Your task to perform on an android device: allow notifications from all sites in the chrome app Image 0: 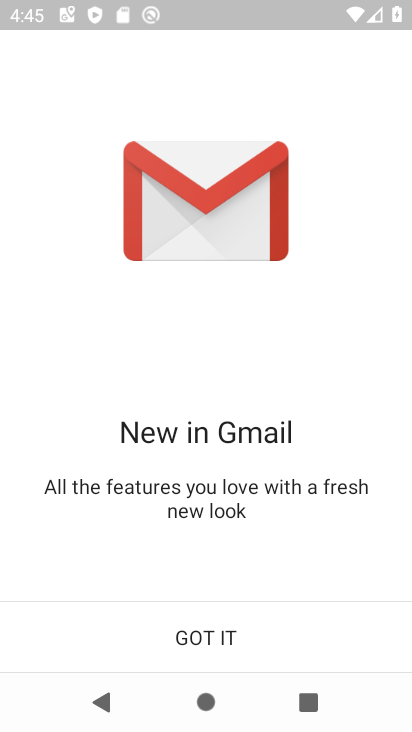
Step 0: click (220, 644)
Your task to perform on an android device: allow notifications from all sites in the chrome app Image 1: 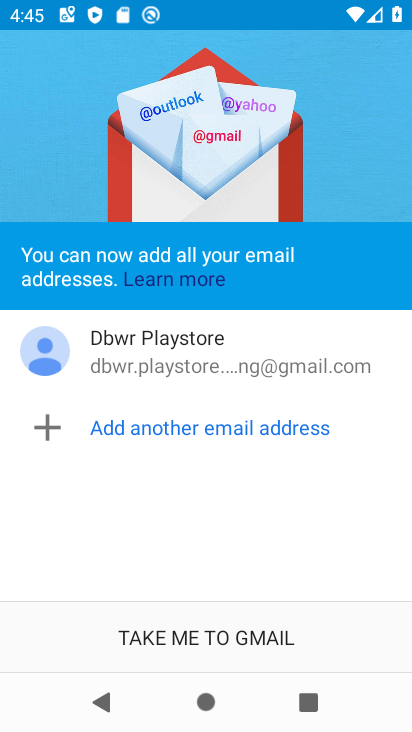
Step 1: press home button
Your task to perform on an android device: allow notifications from all sites in the chrome app Image 2: 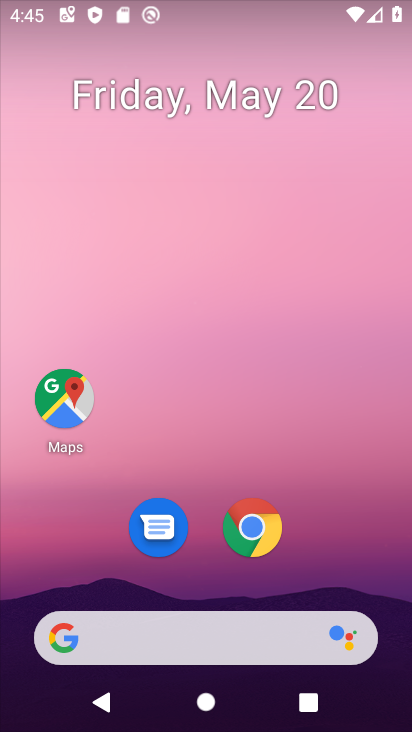
Step 2: click (248, 534)
Your task to perform on an android device: allow notifications from all sites in the chrome app Image 3: 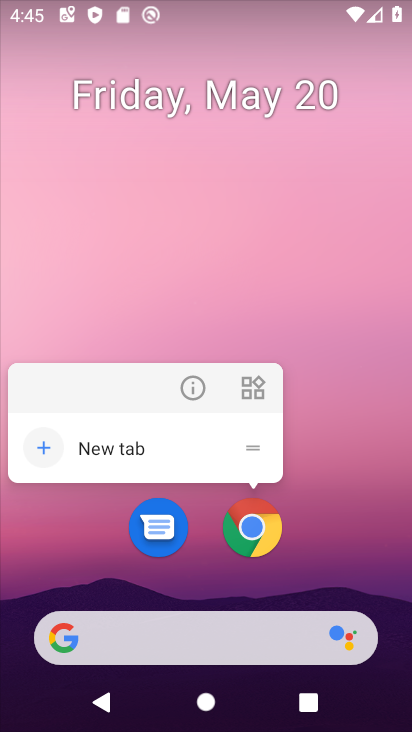
Step 3: click (249, 533)
Your task to perform on an android device: allow notifications from all sites in the chrome app Image 4: 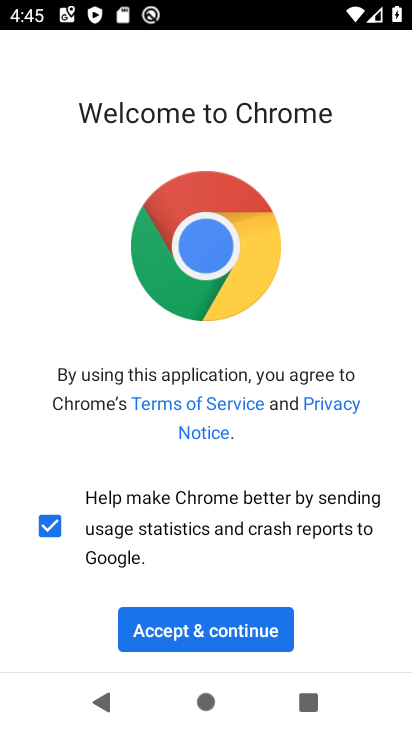
Step 4: click (231, 628)
Your task to perform on an android device: allow notifications from all sites in the chrome app Image 5: 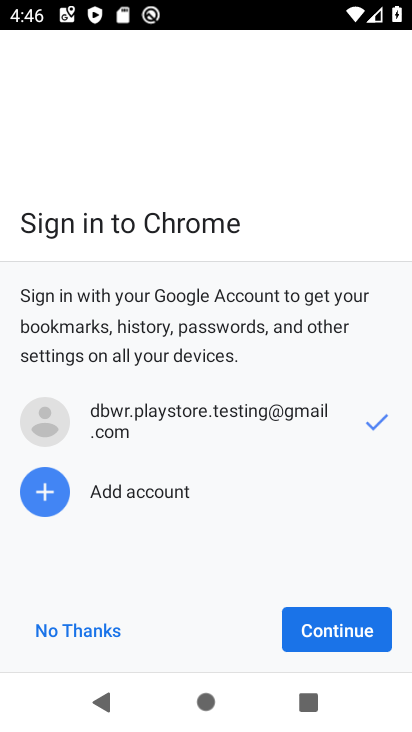
Step 5: click (305, 646)
Your task to perform on an android device: allow notifications from all sites in the chrome app Image 6: 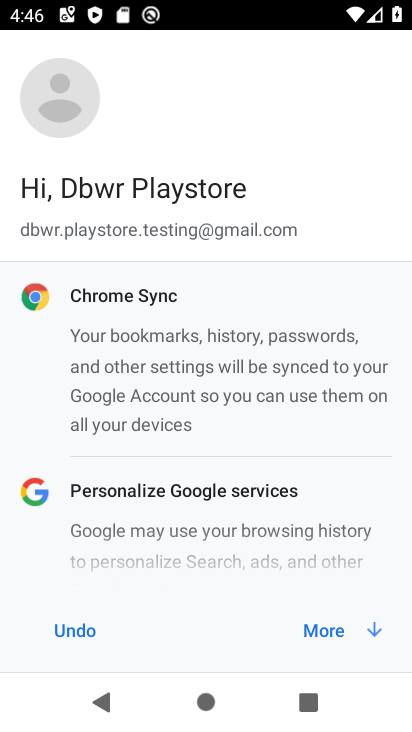
Step 6: click (298, 639)
Your task to perform on an android device: allow notifications from all sites in the chrome app Image 7: 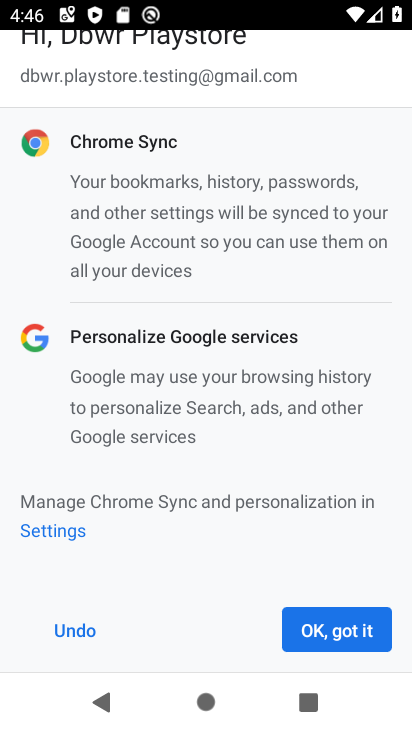
Step 7: click (319, 630)
Your task to perform on an android device: allow notifications from all sites in the chrome app Image 8: 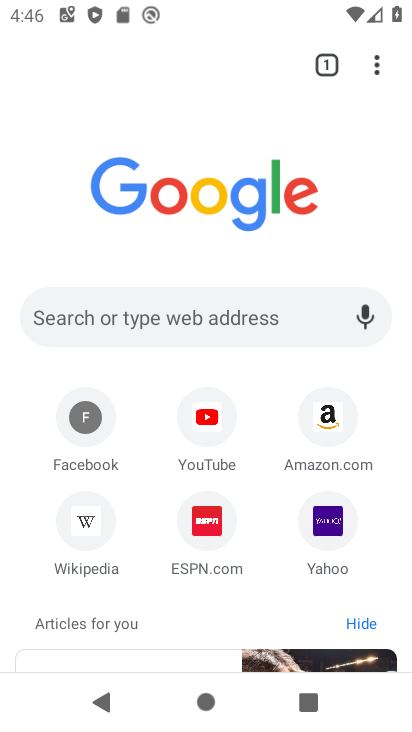
Step 8: click (376, 68)
Your task to perform on an android device: allow notifications from all sites in the chrome app Image 9: 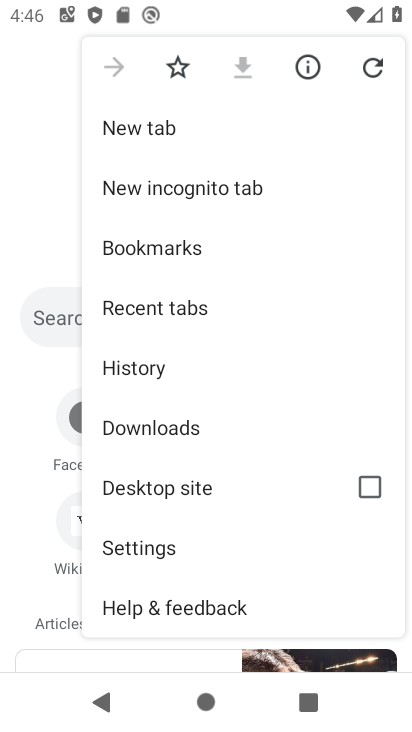
Step 9: click (148, 536)
Your task to perform on an android device: allow notifications from all sites in the chrome app Image 10: 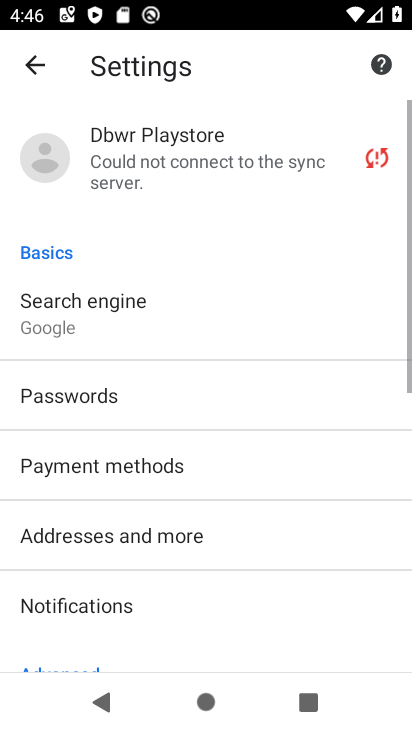
Step 10: drag from (155, 649) to (185, 175)
Your task to perform on an android device: allow notifications from all sites in the chrome app Image 11: 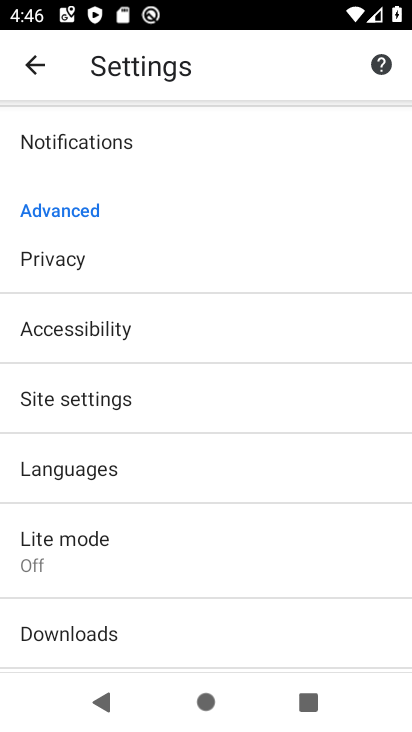
Step 11: click (87, 546)
Your task to perform on an android device: allow notifications from all sites in the chrome app Image 12: 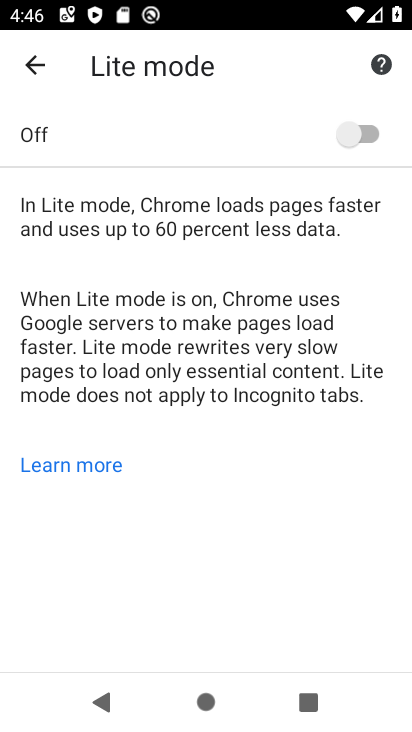
Step 12: click (37, 62)
Your task to perform on an android device: allow notifications from all sites in the chrome app Image 13: 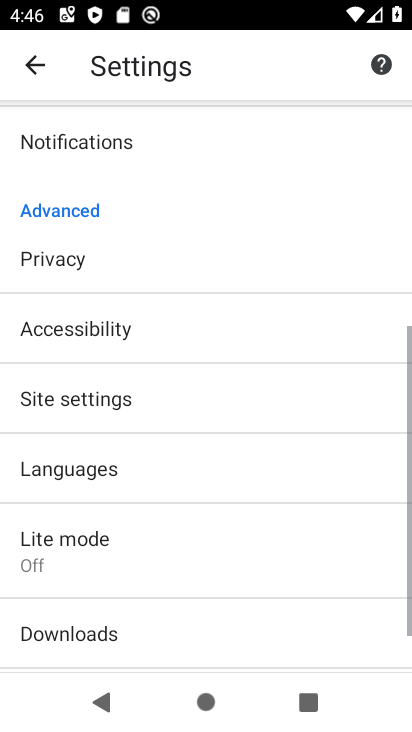
Step 13: click (69, 404)
Your task to perform on an android device: allow notifications from all sites in the chrome app Image 14: 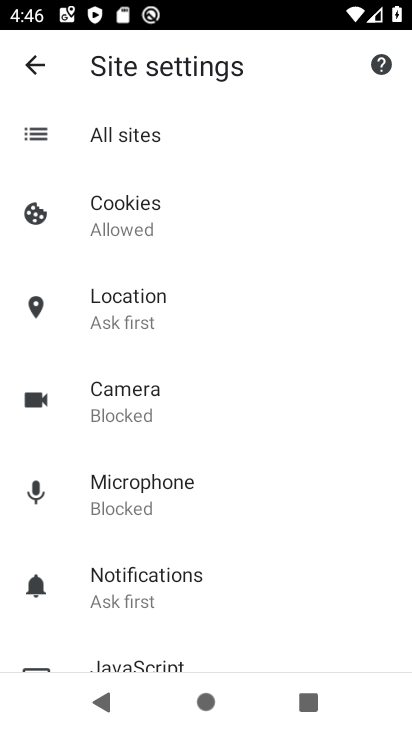
Step 14: click (150, 601)
Your task to perform on an android device: allow notifications from all sites in the chrome app Image 15: 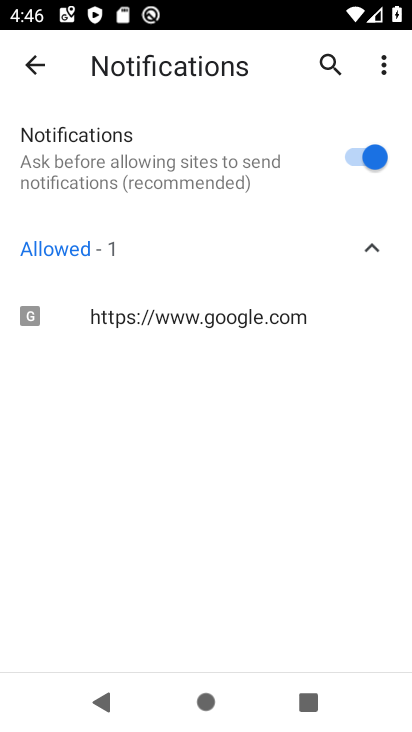
Step 15: task complete